Your task to perform on an android device: Is it going to rain today? Image 0: 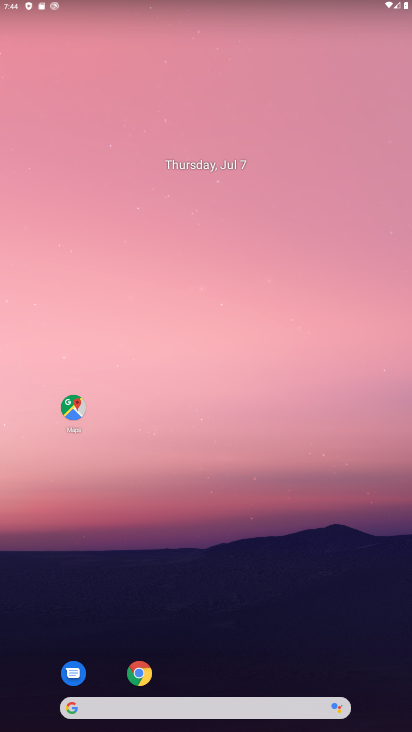
Step 0: drag from (221, 633) to (236, 135)
Your task to perform on an android device: Is it going to rain today? Image 1: 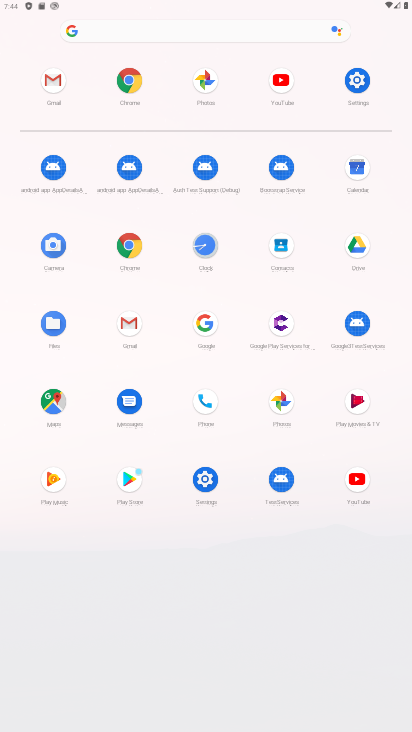
Step 1: click (202, 322)
Your task to perform on an android device: Is it going to rain today? Image 2: 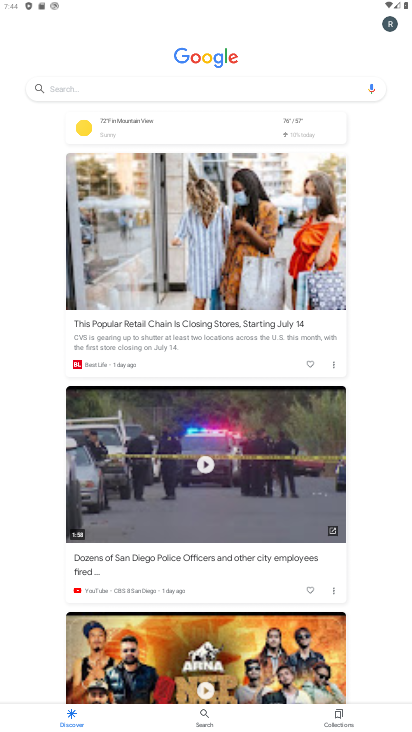
Step 2: click (214, 139)
Your task to perform on an android device: Is it going to rain today? Image 3: 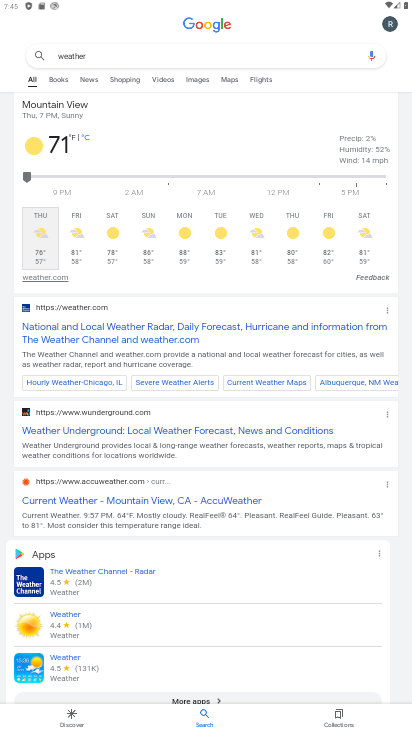
Step 3: task complete